Your task to perform on an android device: delete a single message in the gmail app Image 0: 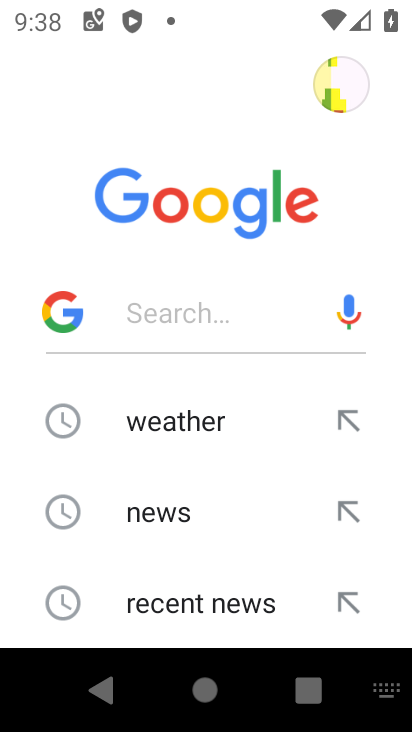
Step 0: press home button
Your task to perform on an android device: delete a single message in the gmail app Image 1: 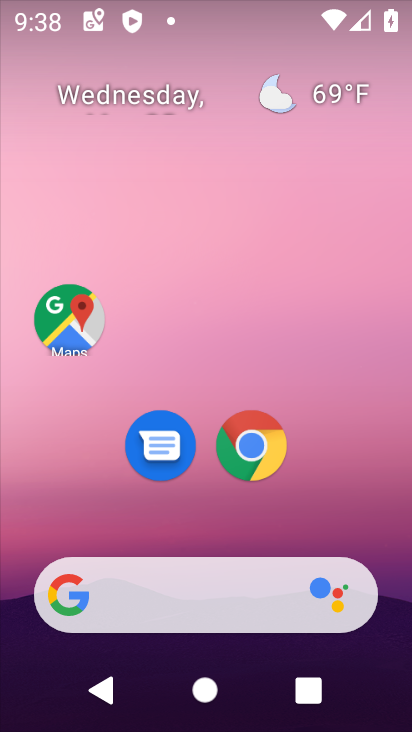
Step 1: drag from (404, 590) to (285, 169)
Your task to perform on an android device: delete a single message in the gmail app Image 2: 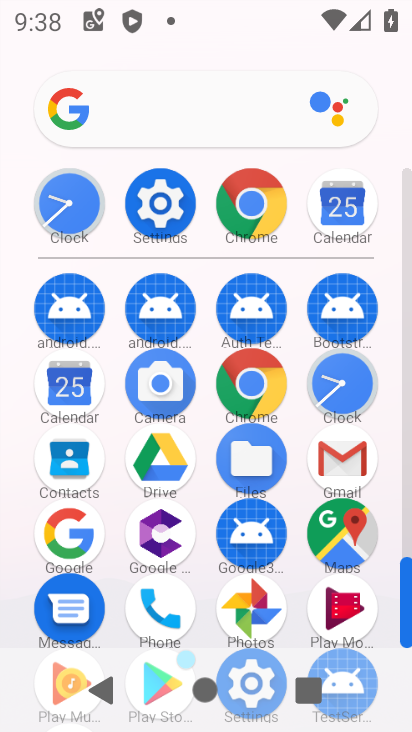
Step 2: drag from (406, 601) to (243, 728)
Your task to perform on an android device: delete a single message in the gmail app Image 3: 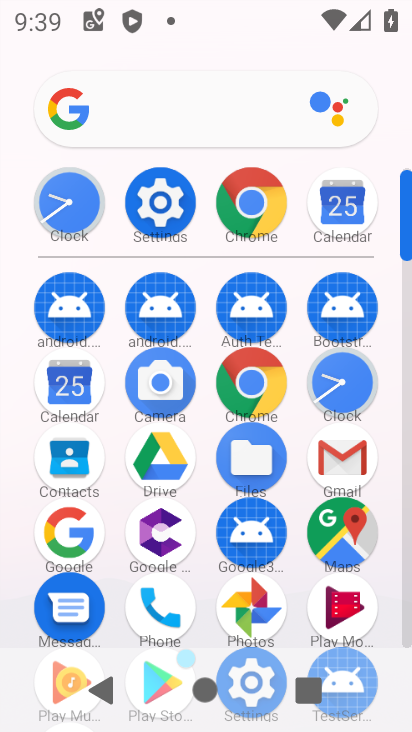
Step 3: click (408, 642)
Your task to perform on an android device: delete a single message in the gmail app Image 4: 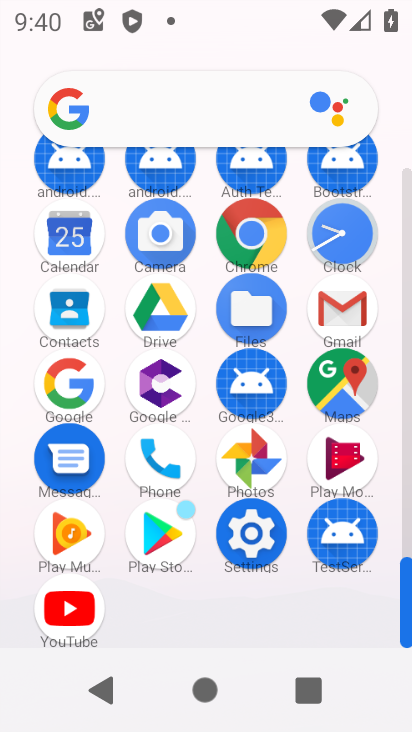
Step 4: click (347, 326)
Your task to perform on an android device: delete a single message in the gmail app Image 5: 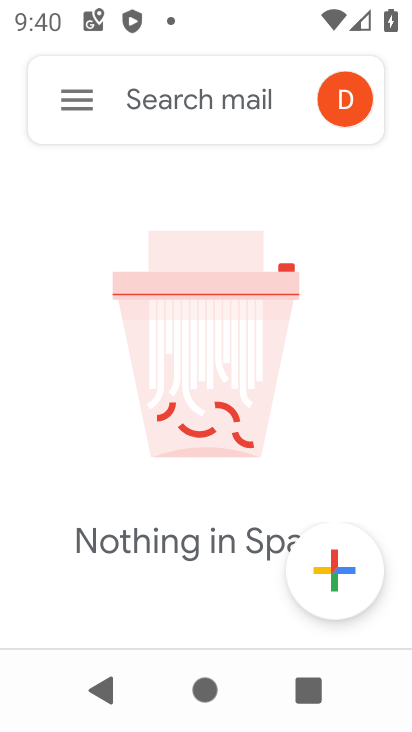
Step 5: click (70, 105)
Your task to perform on an android device: delete a single message in the gmail app Image 6: 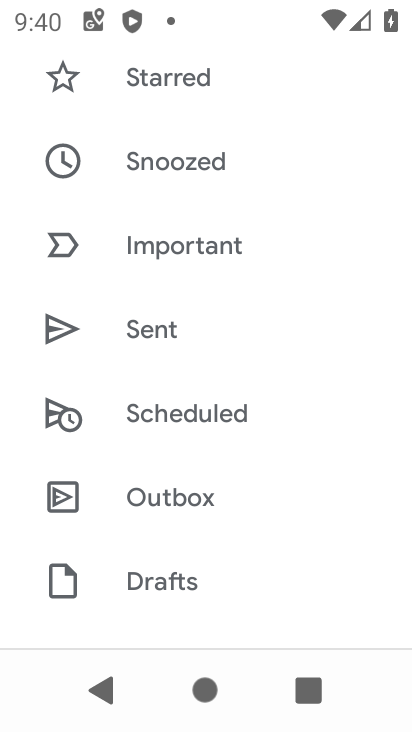
Step 6: task complete